Your task to perform on an android device: Go to Google maps Image 0: 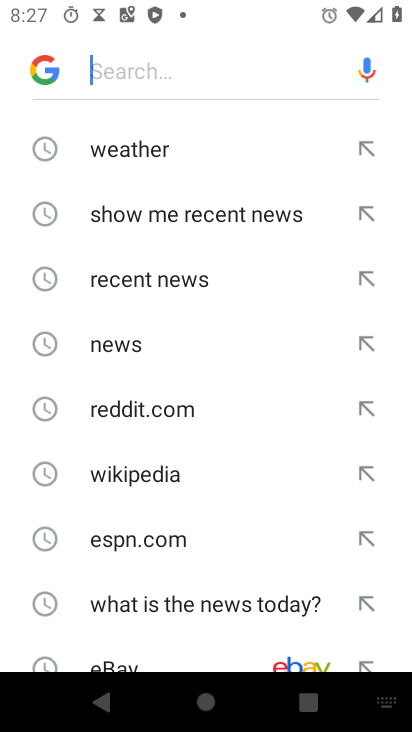
Step 0: press home button
Your task to perform on an android device: Go to Google maps Image 1: 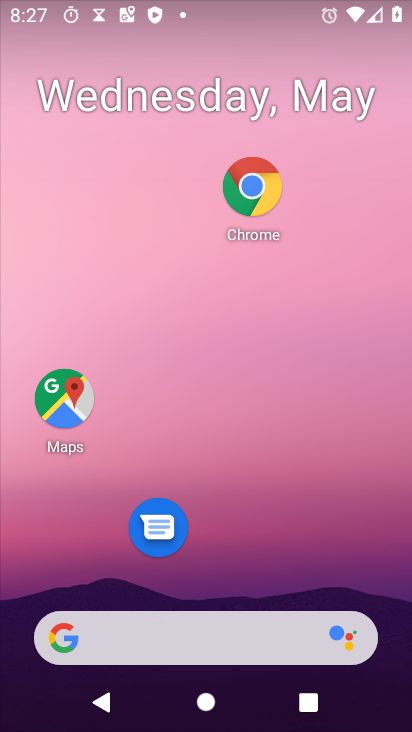
Step 1: click (62, 403)
Your task to perform on an android device: Go to Google maps Image 2: 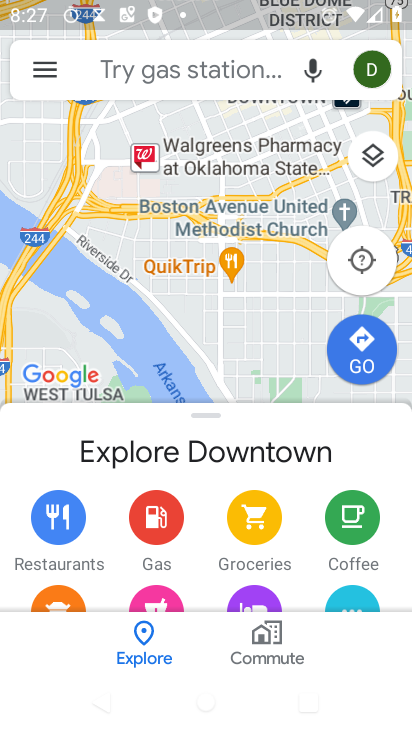
Step 2: task complete